Your task to perform on an android device: Show me popular games on the Play Store Image 0: 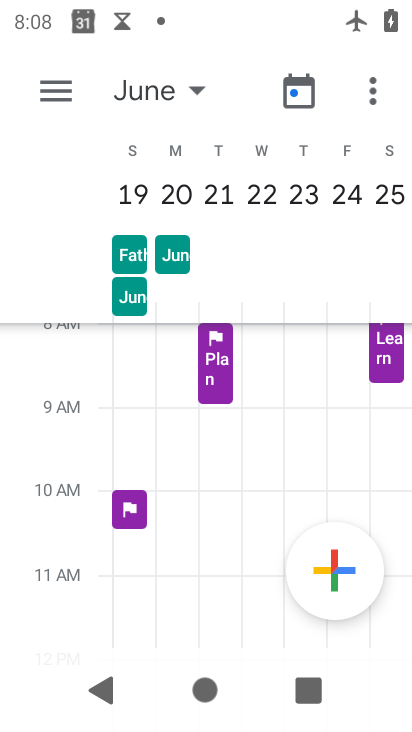
Step 0: press home button
Your task to perform on an android device: Show me popular games on the Play Store Image 1: 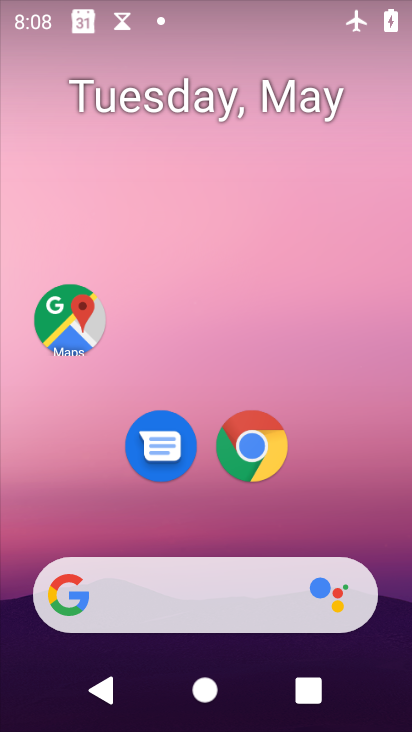
Step 1: drag from (342, 547) to (368, 16)
Your task to perform on an android device: Show me popular games on the Play Store Image 2: 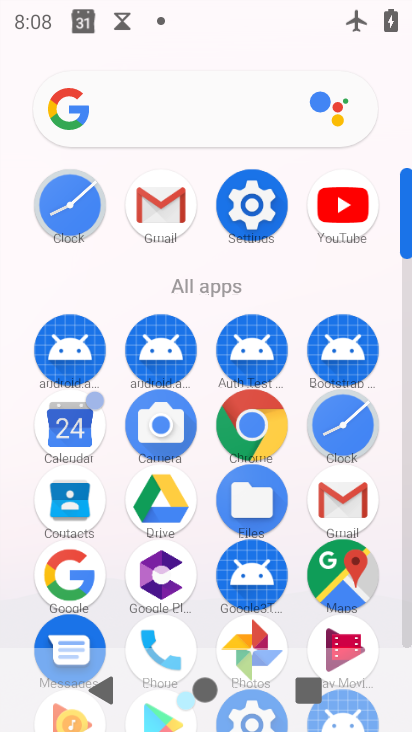
Step 2: click (409, 552)
Your task to perform on an android device: Show me popular games on the Play Store Image 3: 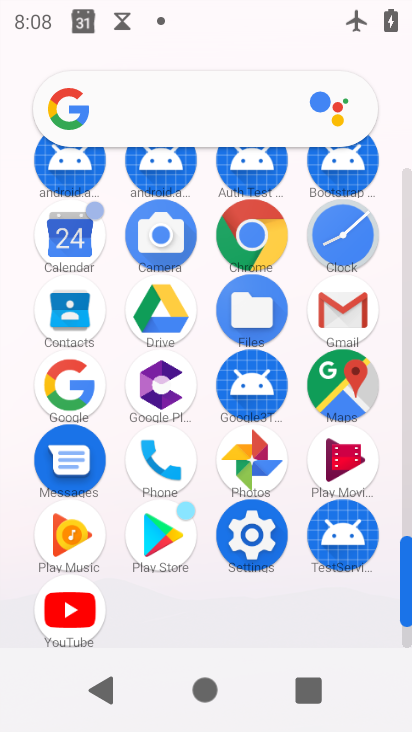
Step 3: click (162, 539)
Your task to perform on an android device: Show me popular games on the Play Store Image 4: 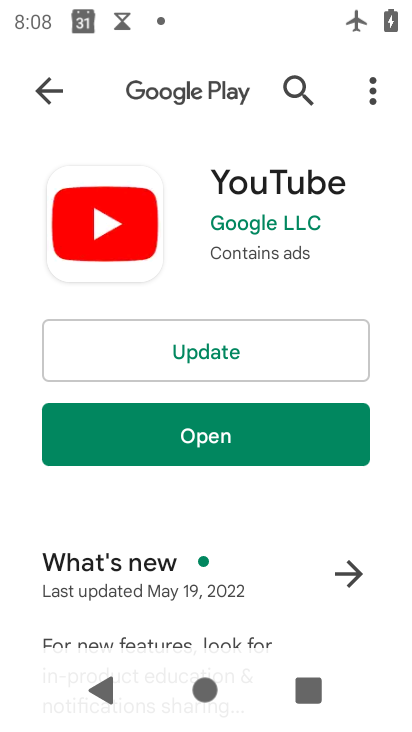
Step 4: click (211, 357)
Your task to perform on an android device: Show me popular games on the Play Store Image 5: 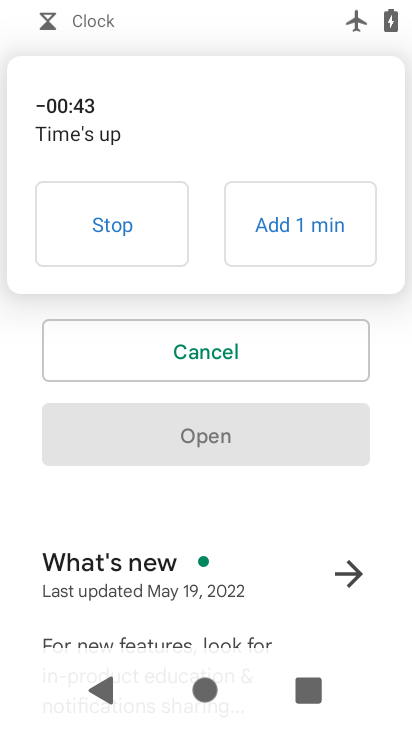
Step 5: click (130, 217)
Your task to perform on an android device: Show me popular games on the Play Store Image 6: 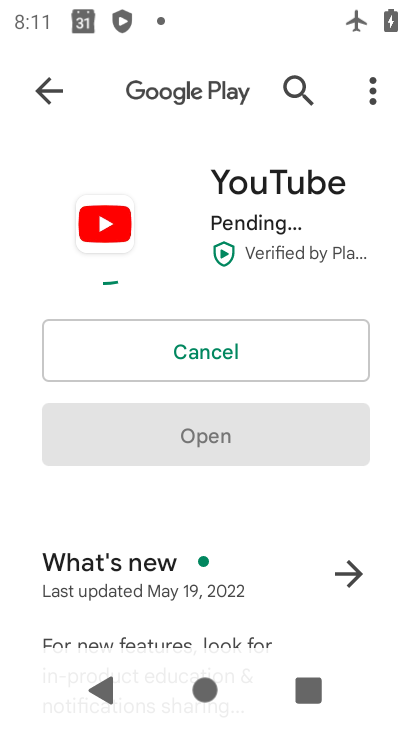
Step 6: click (188, 350)
Your task to perform on an android device: Show me popular games on the Play Store Image 7: 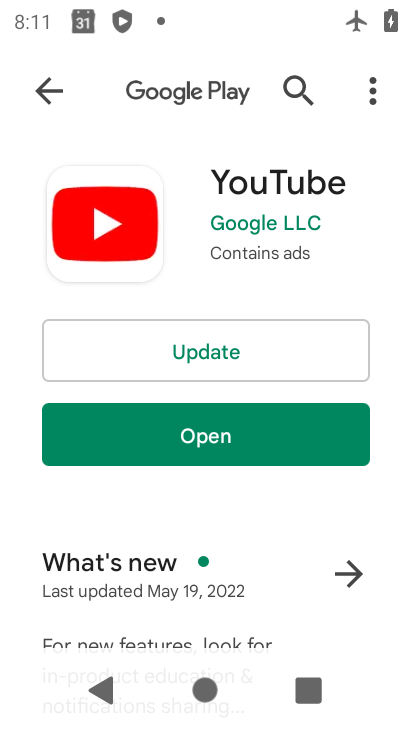
Step 7: click (188, 350)
Your task to perform on an android device: Show me popular games on the Play Store Image 8: 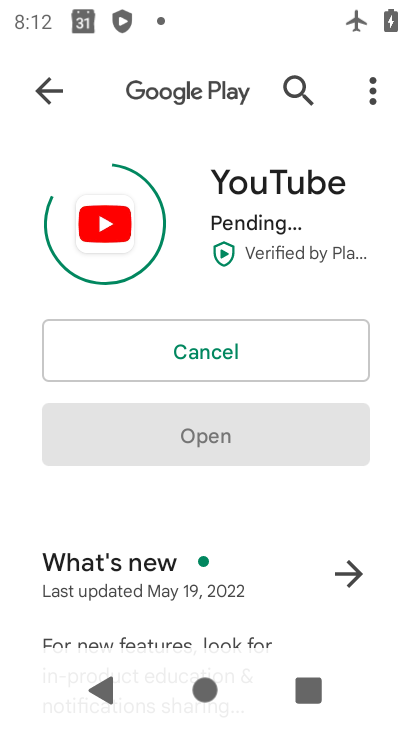
Step 8: click (238, 227)
Your task to perform on an android device: Show me popular games on the Play Store Image 9: 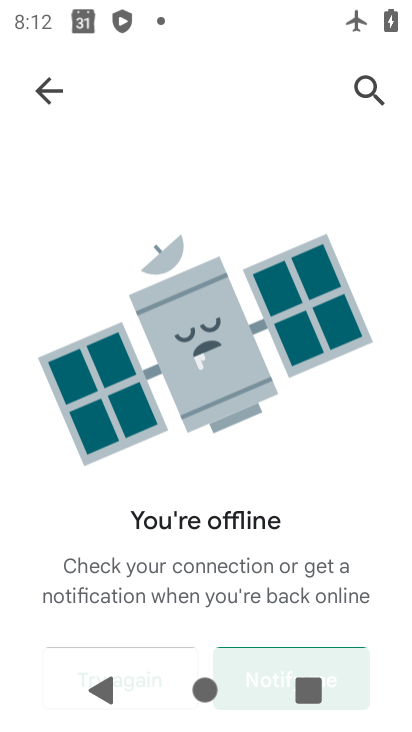
Step 9: task complete